Your task to perform on an android device: check data usage Image 0: 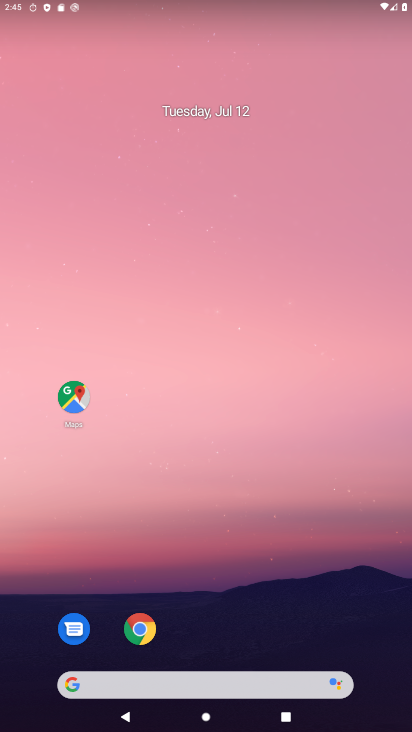
Step 0: drag from (300, 600) to (281, 22)
Your task to perform on an android device: check data usage Image 1: 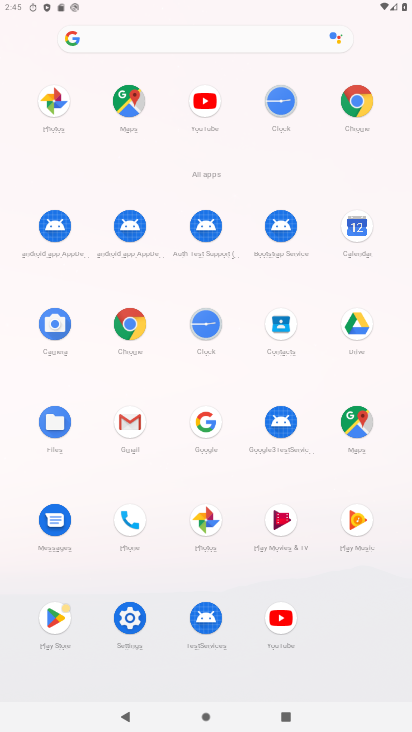
Step 1: drag from (196, 2) to (198, 468)
Your task to perform on an android device: check data usage Image 2: 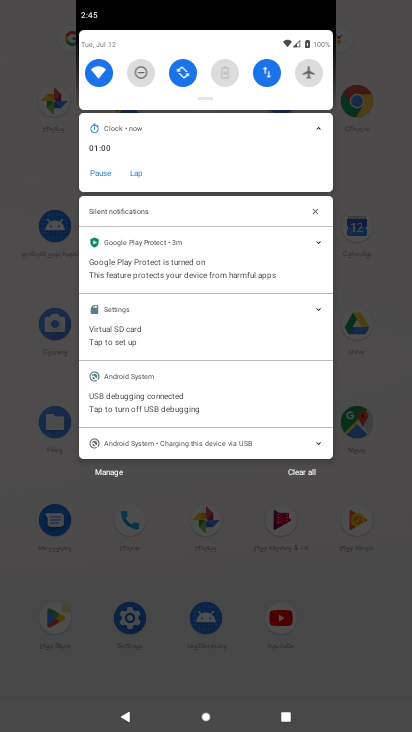
Step 2: click (264, 67)
Your task to perform on an android device: check data usage Image 3: 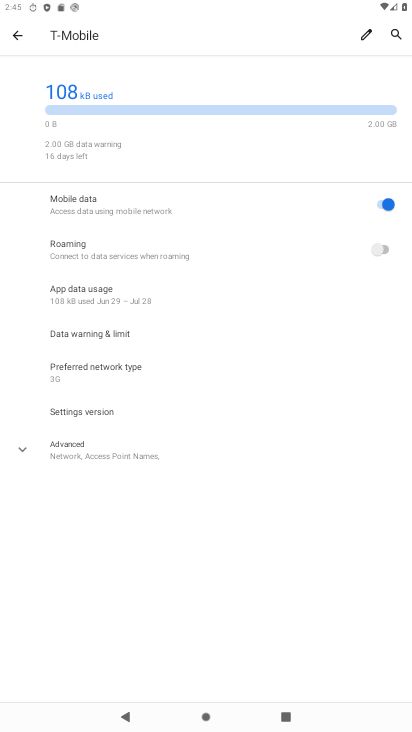
Step 3: task complete